Your task to perform on an android device: turn off wifi Image 0: 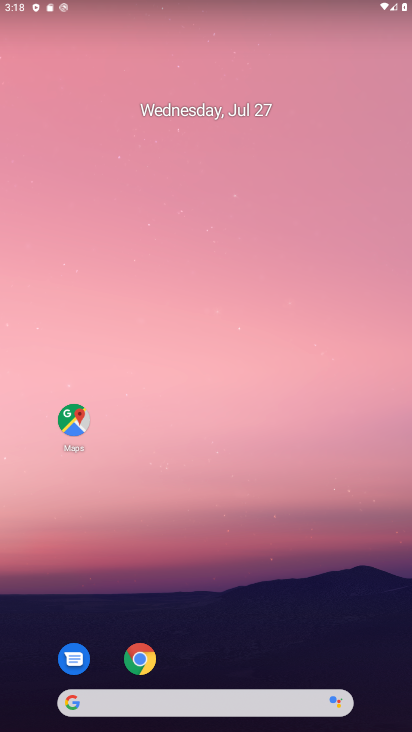
Step 0: drag from (244, 666) to (194, 7)
Your task to perform on an android device: turn off wifi Image 1: 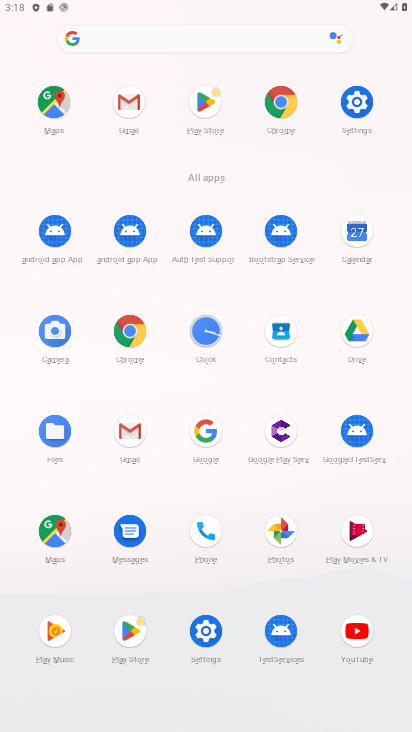
Step 1: click (349, 95)
Your task to perform on an android device: turn off wifi Image 2: 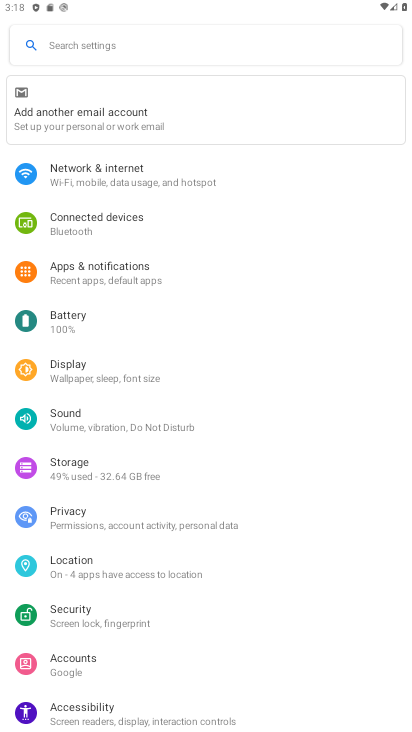
Step 2: click (106, 167)
Your task to perform on an android device: turn off wifi Image 3: 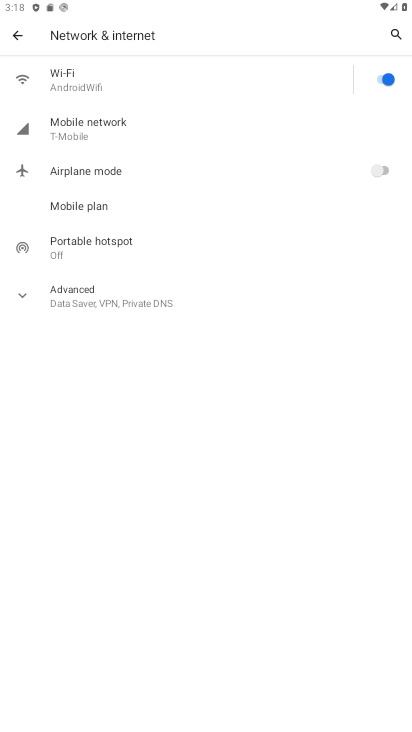
Step 3: click (390, 79)
Your task to perform on an android device: turn off wifi Image 4: 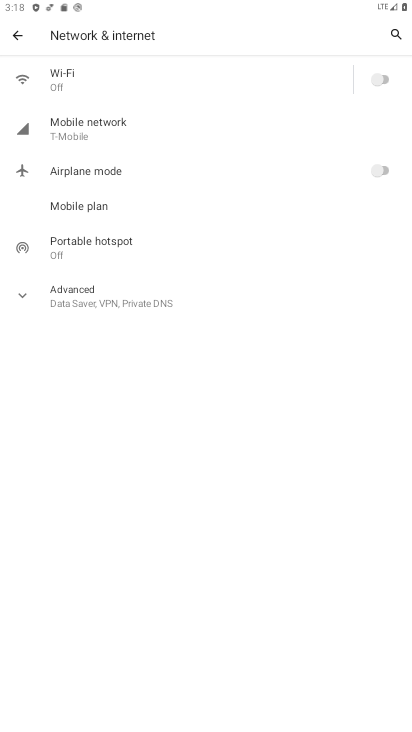
Step 4: task complete